Your task to perform on an android device: set the stopwatch Image 0: 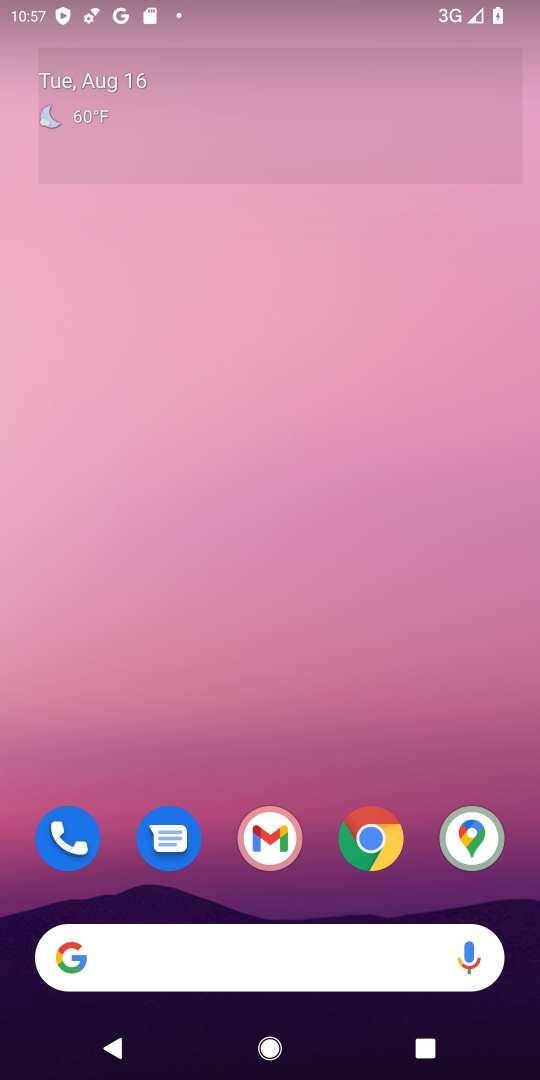
Step 0: press home button
Your task to perform on an android device: set the stopwatch Image 1: 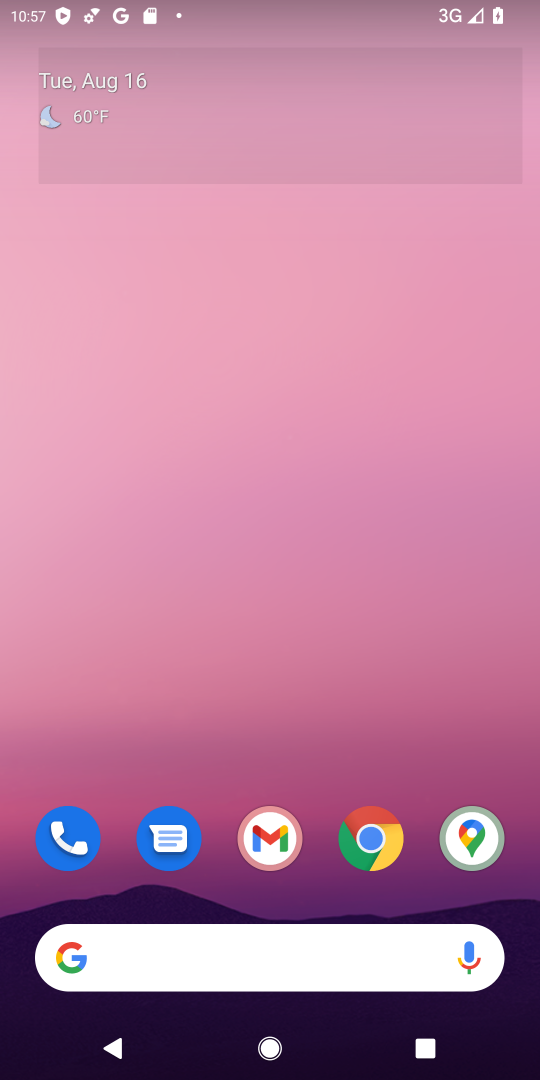
Step 1: drag from (282, 555) to (441, 0)
Your task to perform on an android device: set the stopwatch Image 2: 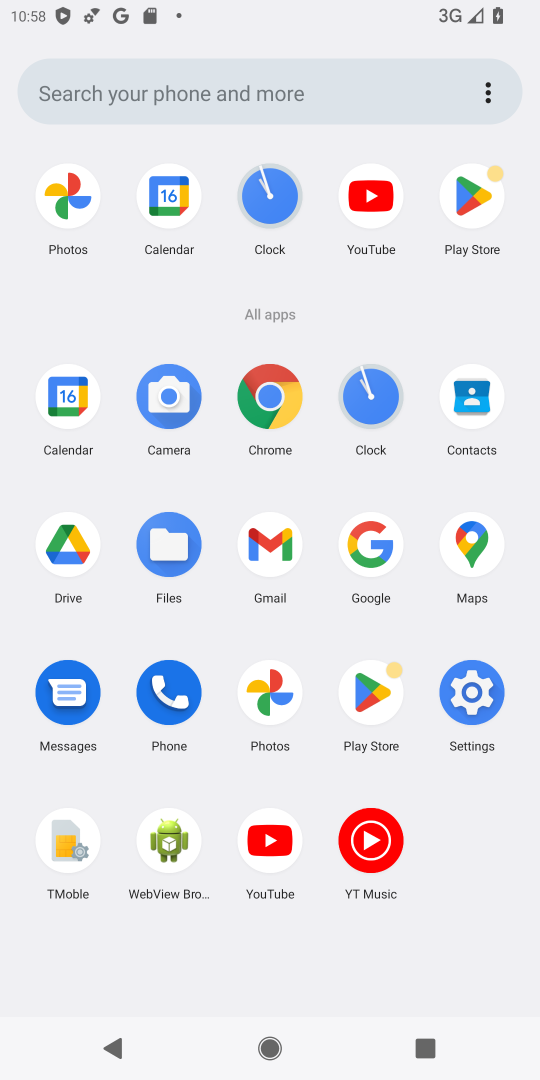
Step 2: click (363, 406)
Your task to perform on an android device: set the stopwatch Image 3: 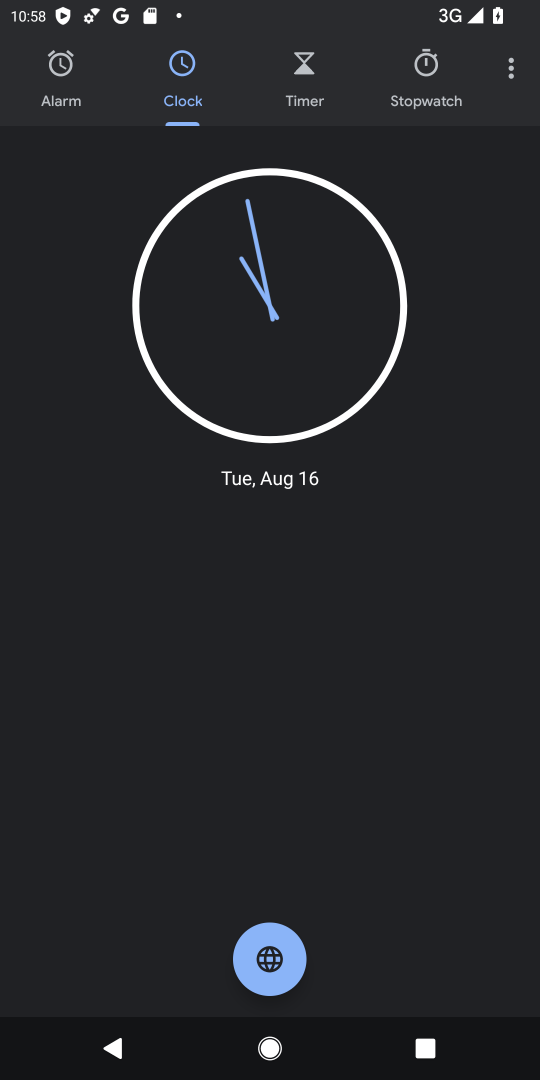
Step 3: click (444, 72)
Your task to perform on an android device: set the stopwatch Image 4: 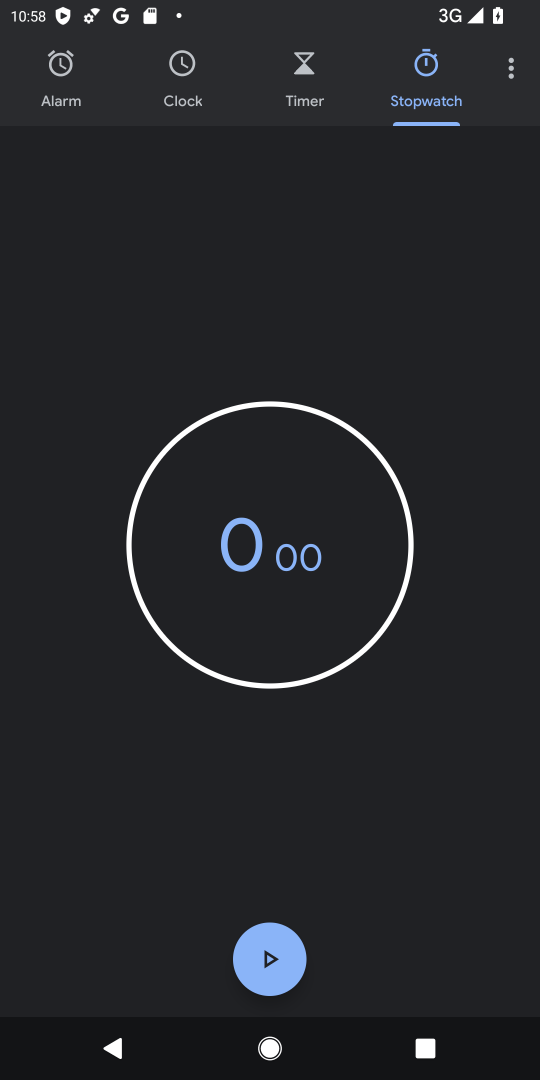
Step 4: click (276, 975)
Your task to perform on an android device: set the stopwatch Image 5: 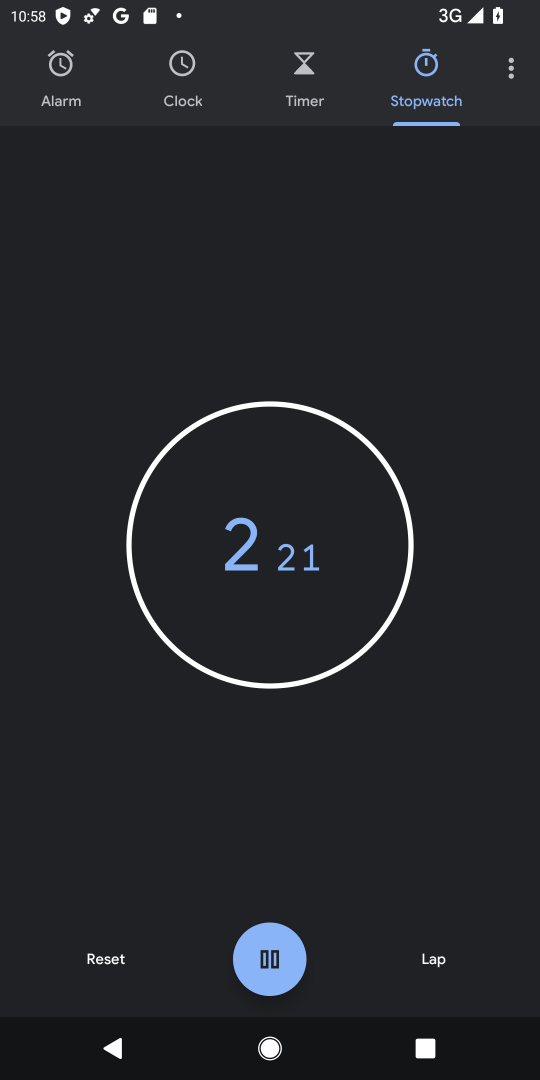
Step 5: click (305, 943)
Your task to perform on an android device: set the stopwatch Image 6: 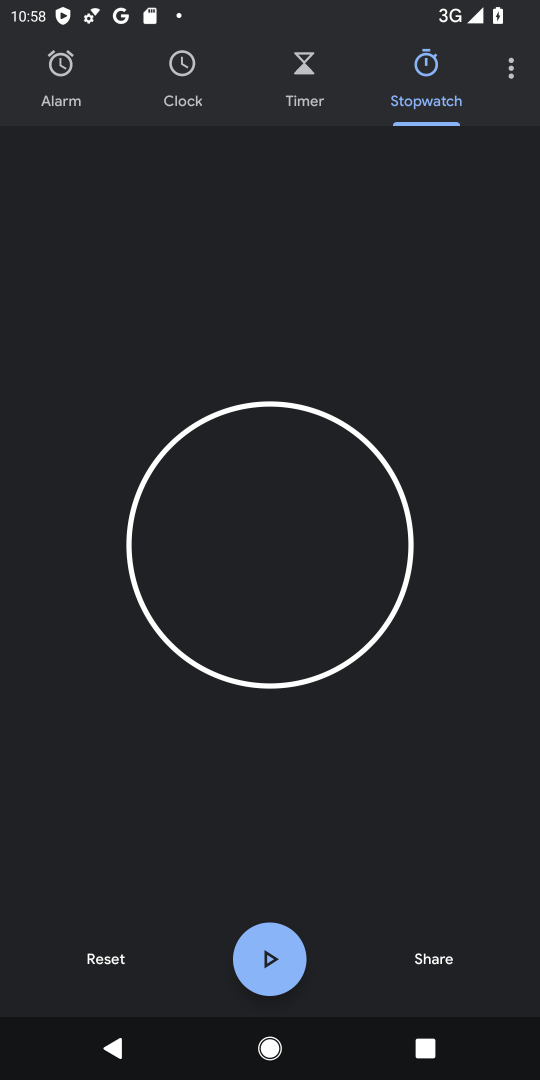
Step 6: task complete